Your task to perform on an android device: What's the weather going to be tomorrow? Image 0: 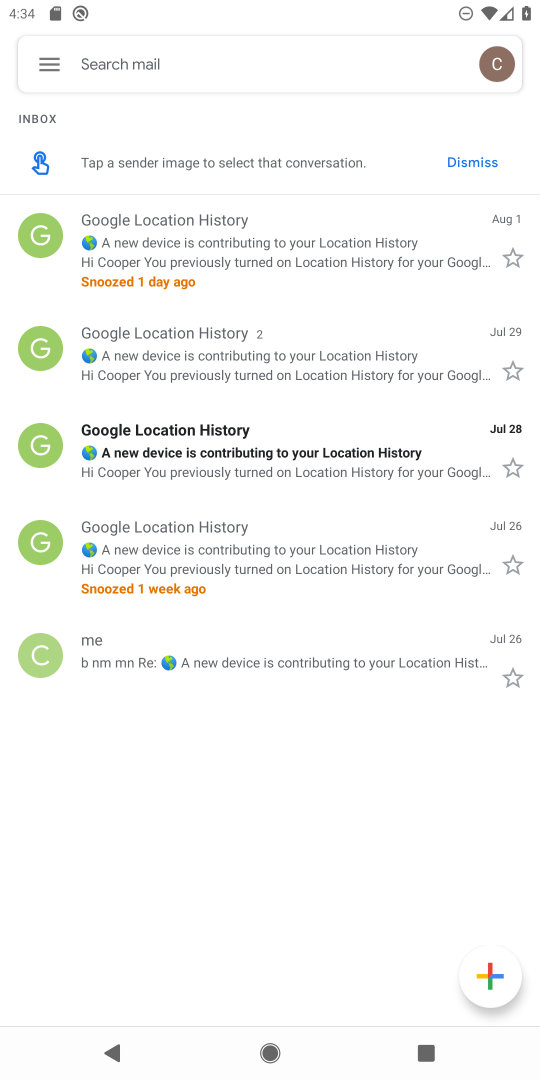
Step 0: press home button
Your task to perform on an android device: What's the weather going to be tomorrow? Image 1: 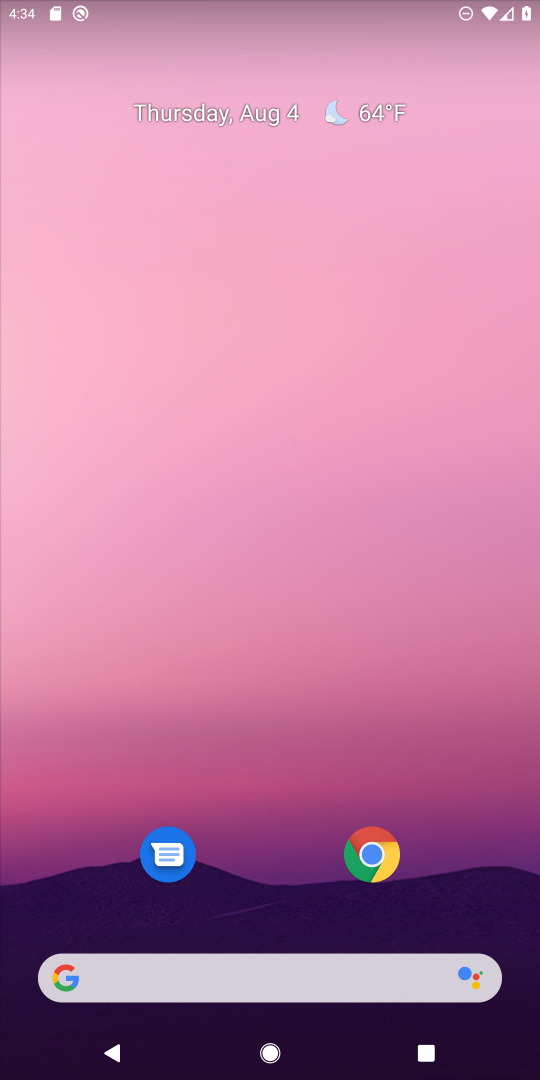
Step 1: click (205, 960)
Your task to perform on an android device: What's the weather going to be tomorrow? Image 2: 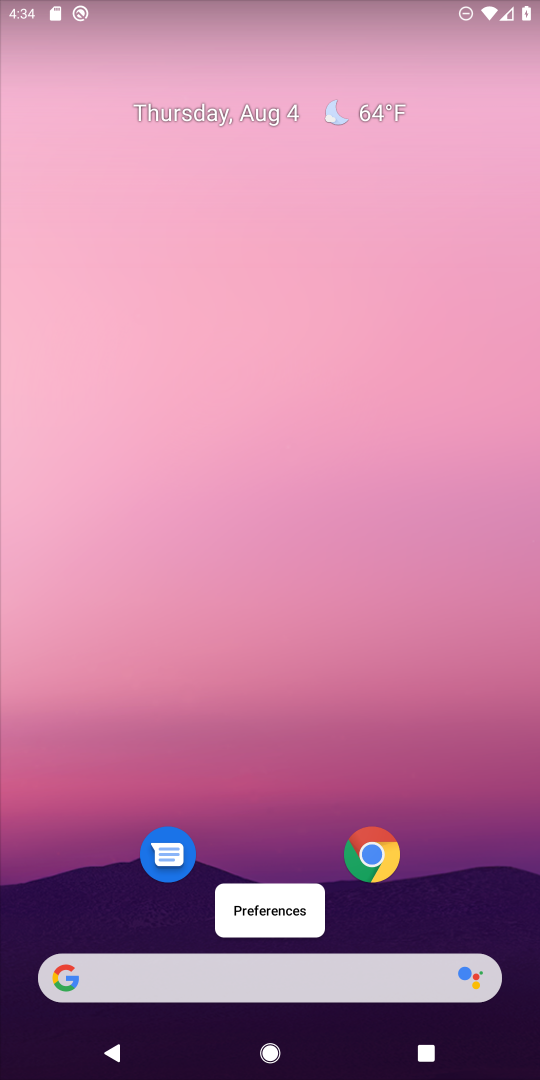
Step 2: click (141, 980)
Your task to perform on an android device: What's the weather going to be tomorrow? Image 3: 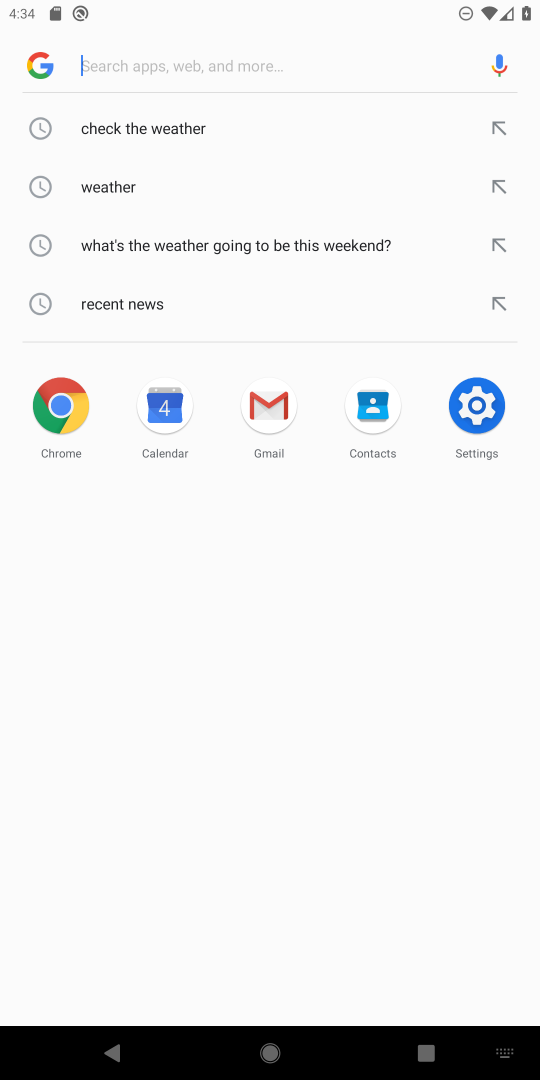
Step 3: type "What's the weather going to be tomorrow?"
Your task to perform on an android device: What's the weather going to be tomorrow? Image 4: 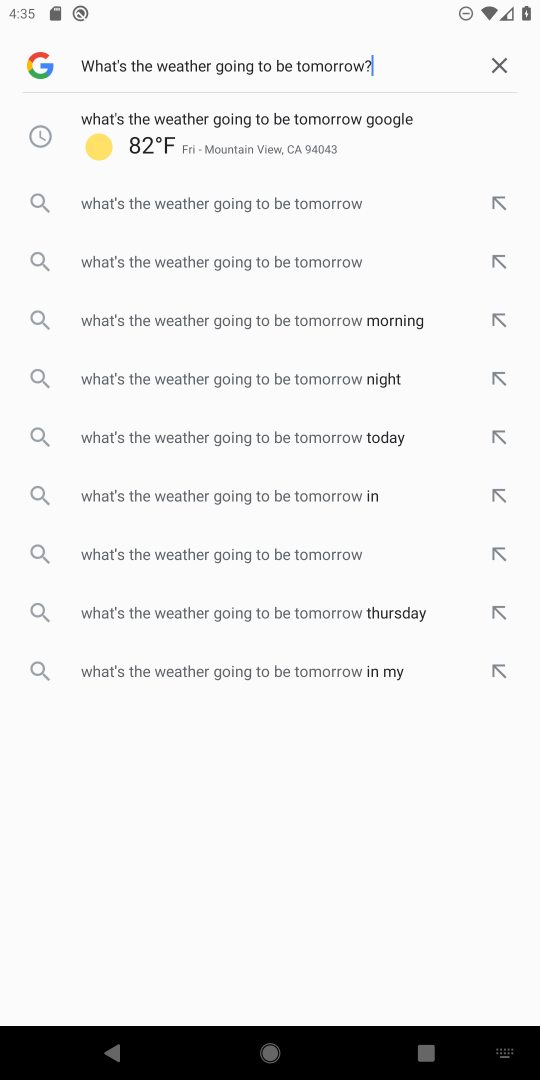
Step 4: type ""
Your task to perform on an android device: What's the weather going to be tomorrow? Image 5: 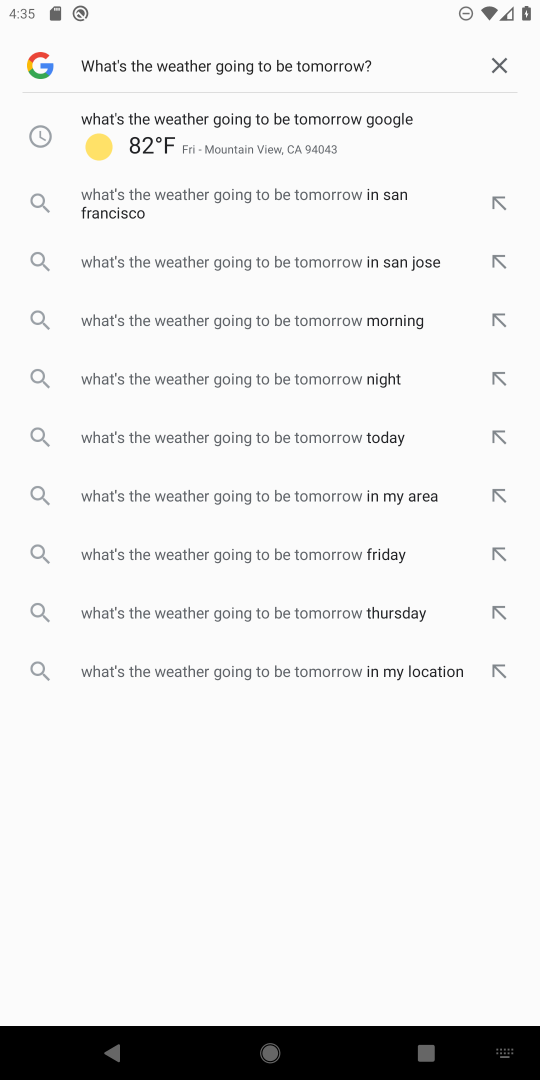
Step 5: press enter
Your task to perform on an android device: What's the weather going to be tomorrow? Image 6: 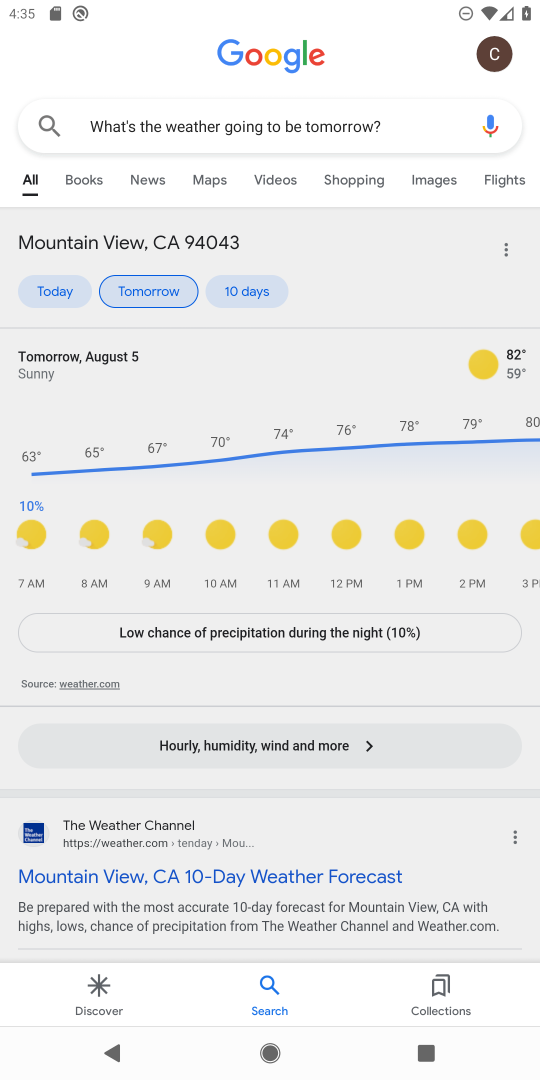
Step 6: task complete